Your task to perform on an android device: What's the weather? Image 0: 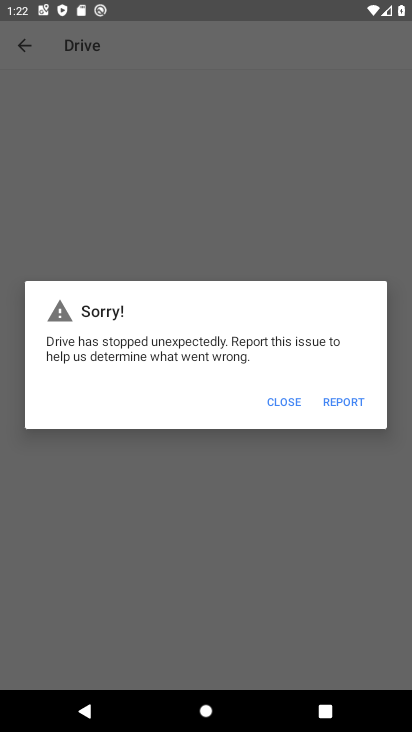
Step 0: press home button
Your task to perform on an android device: What's the weather? Image 1: 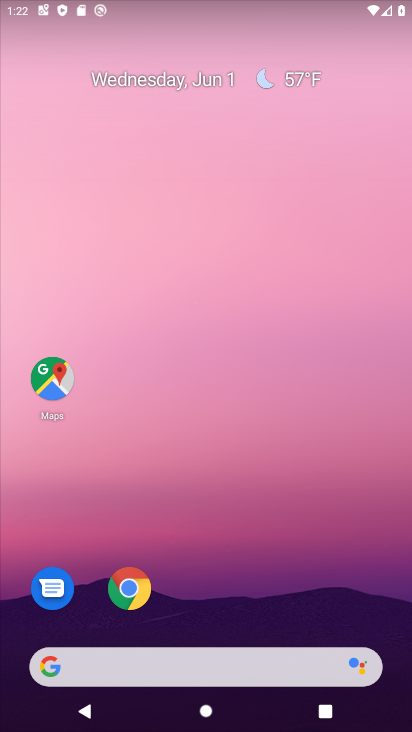
Step 1: drag from (245, 250) to (212, 91)
Your task to perform on an android device: What's the weather? Image 2: 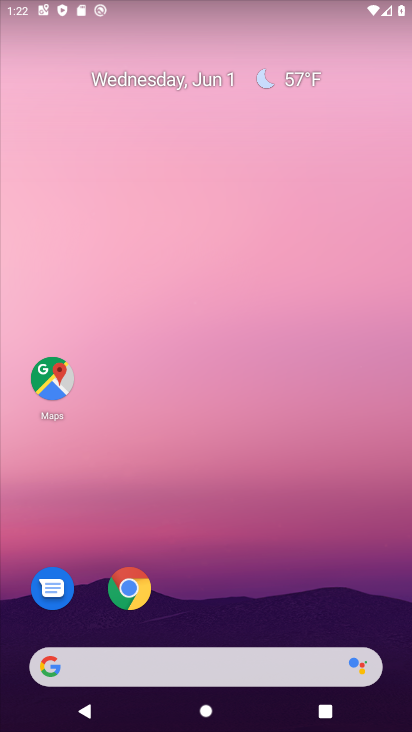
Step 2: click (308, 78)
Your task to perform on an android device: What's the weather? Image 3: 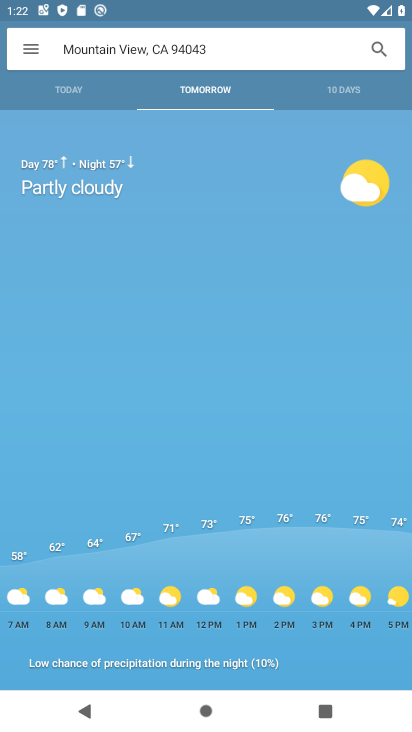
Step 3: click (68, 90)
Your task to perform on an android device: What's the weather? Image 4: 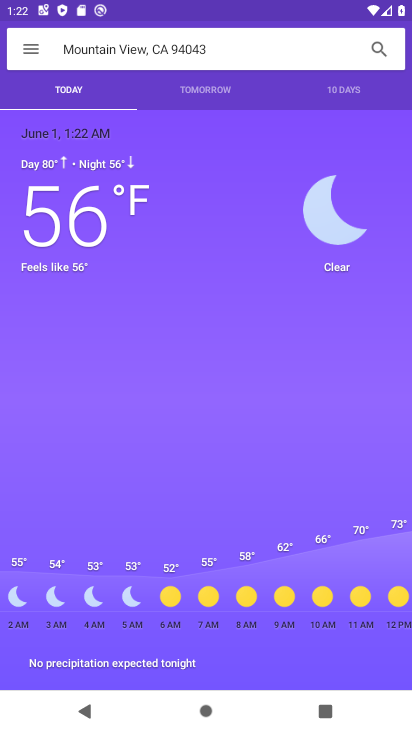
Step 4: task complete